Your task to perform on an android device: turn smart compose on in the gmail app Image 0: 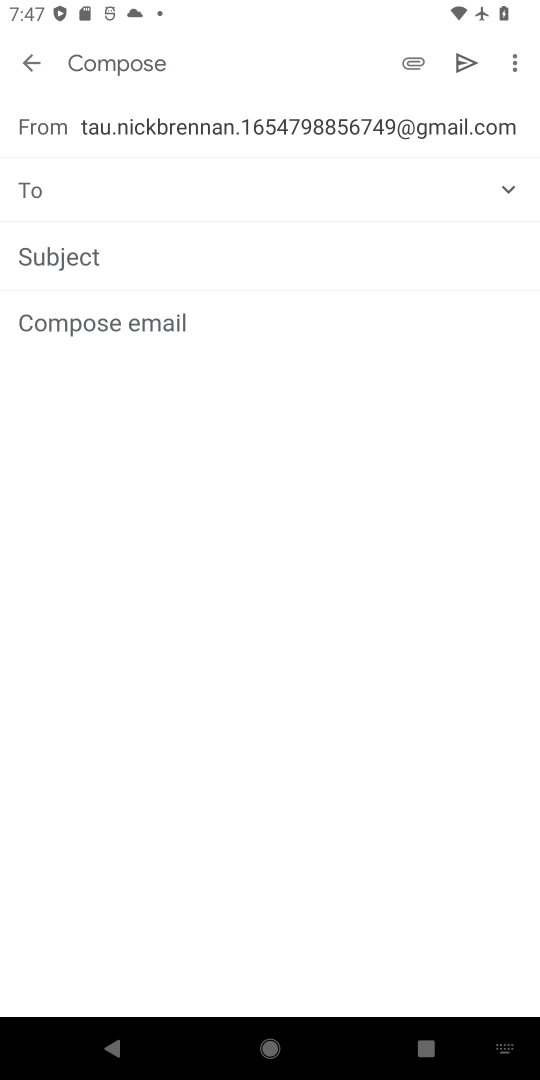
Step 0: press home button
Your task to perform on an android device: turn smart compose on in the gmail app Image 1: 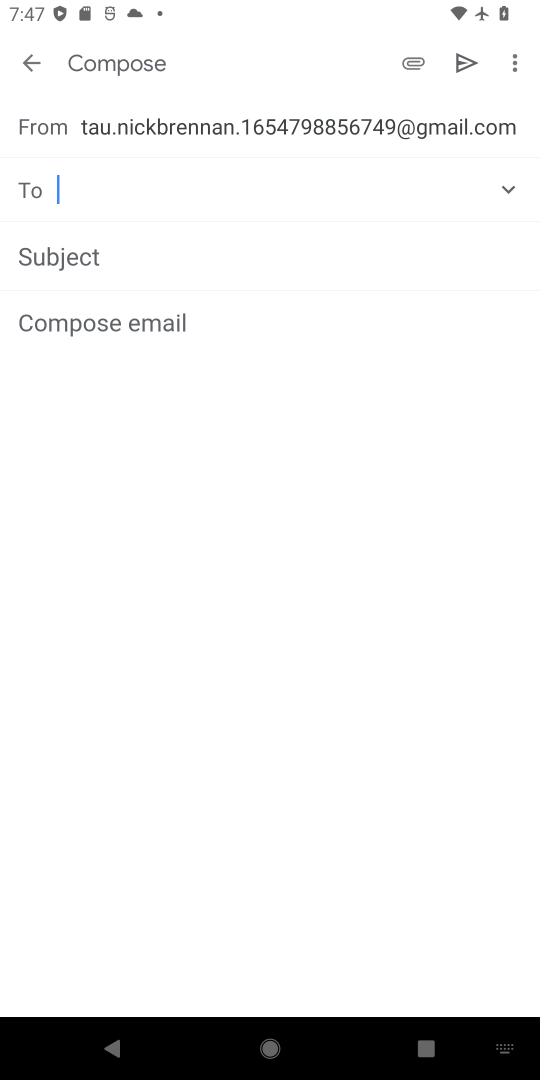
Step 1: press home button
Your task to perform on an android device: turn smart compose on in the gmail app Image 2: 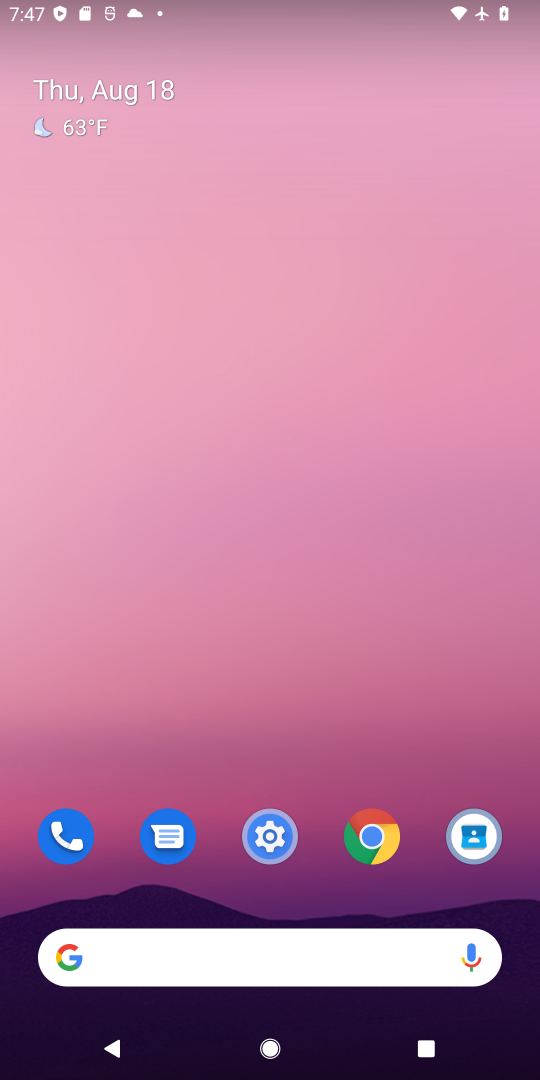
Step 2: drag from (322, 724) to (389, 47)
Your task to perform on an android device: turn smart compose on in the gmail app Image 3: 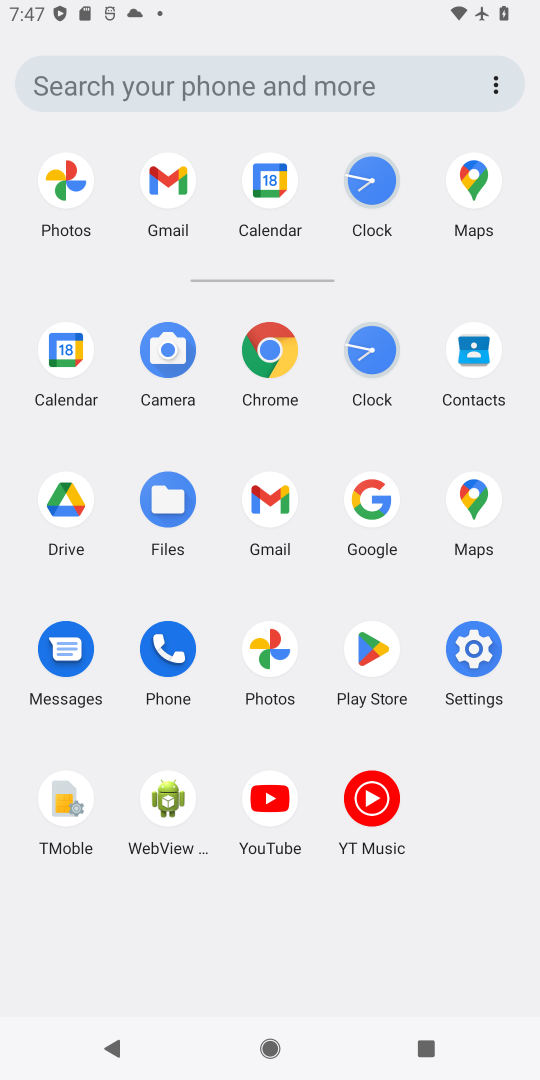
Step 3: click (279, 511)
Your task to perform on an android device: turn smart compose on in the gmail app Image 4: 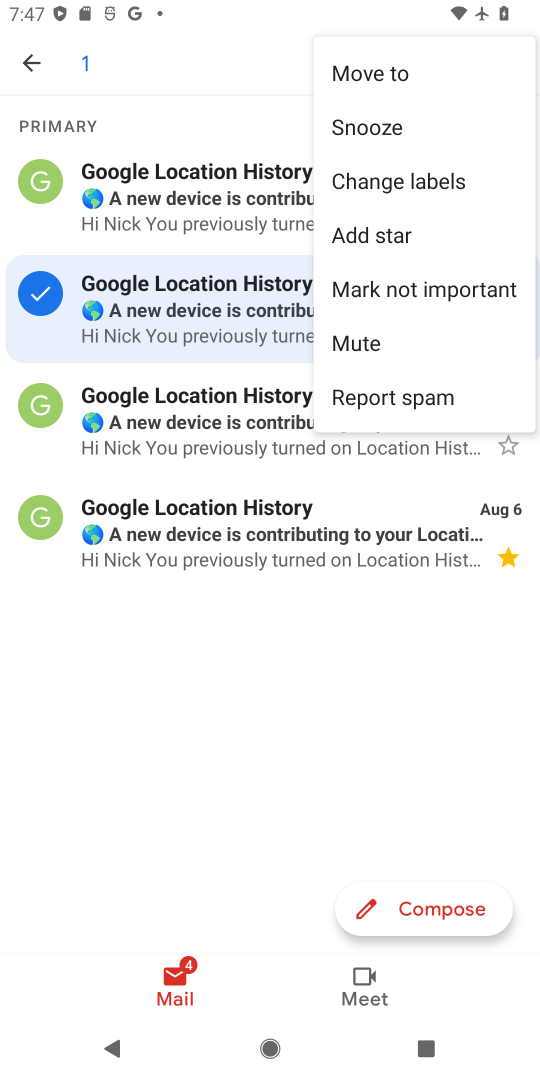
Step 4: click (162, 742)
Your task to perform on an android device: turn smart compose on in the gmail app Image 5: 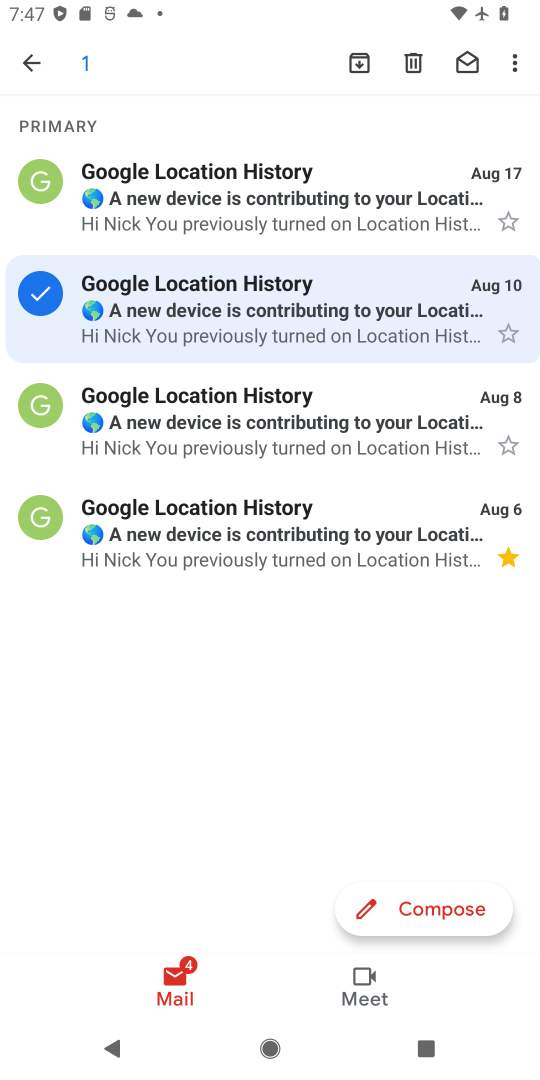
Step 5: press back button
Your task to perform on an android device: turn smart compose on in the gmail app Image 6: 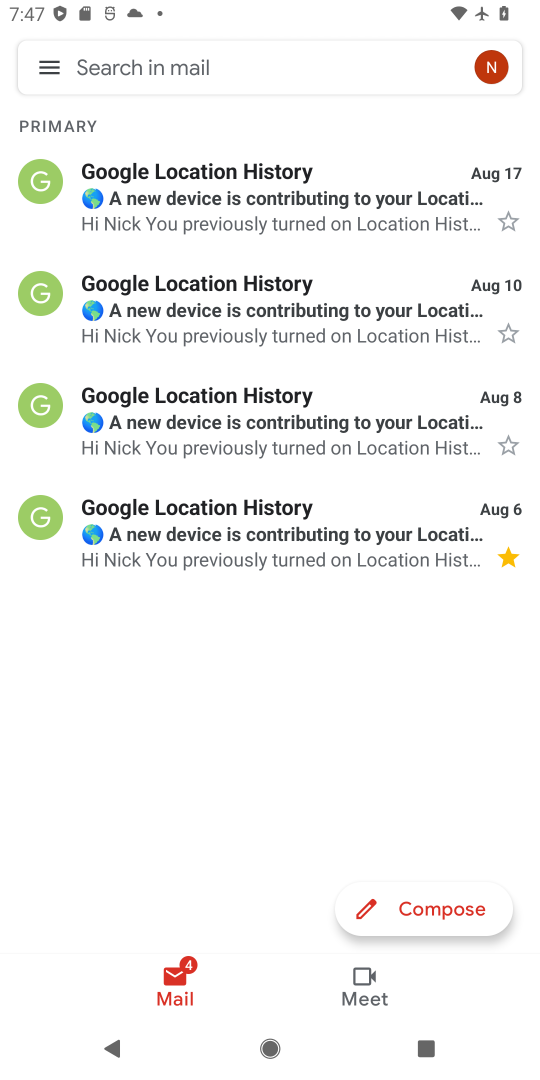
Step 6: click (46, 67)
Your task to perform on an android device: turn smart compose on in the gmail app Image 7: 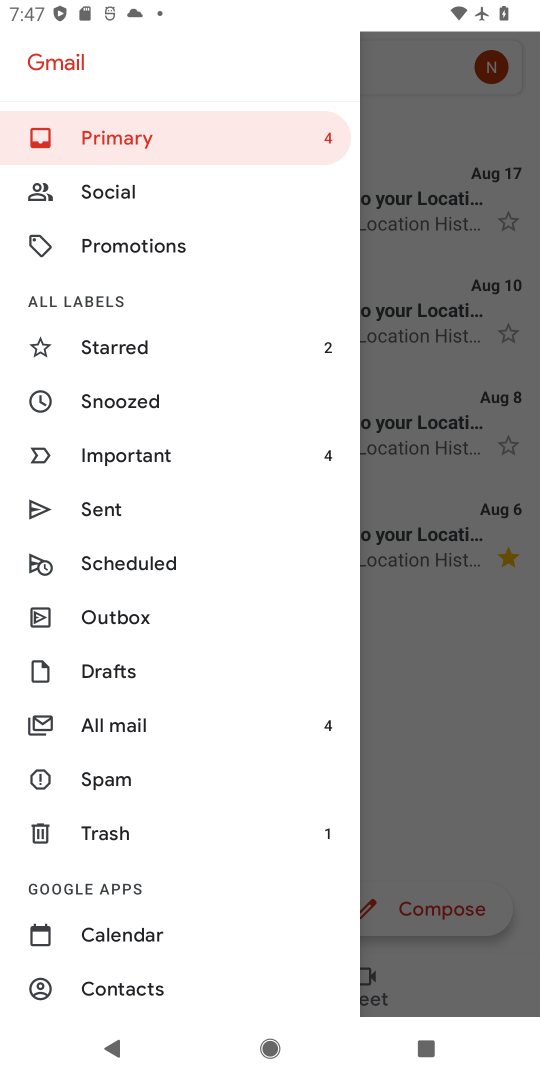
Step 7: drag from (137, 845) to (227, 228)
Your task to perform on an android device: turn smart compose on in the gmail app Image 8: 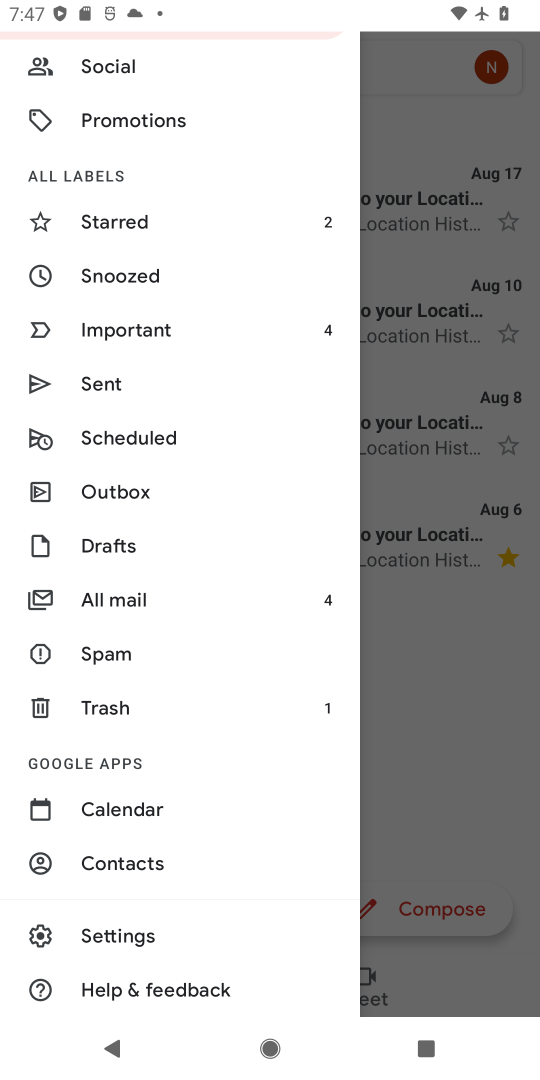
Step 8: click (134, 926)
Your task to perform on an android device: turn smart compose on in the gmail app Image 9: 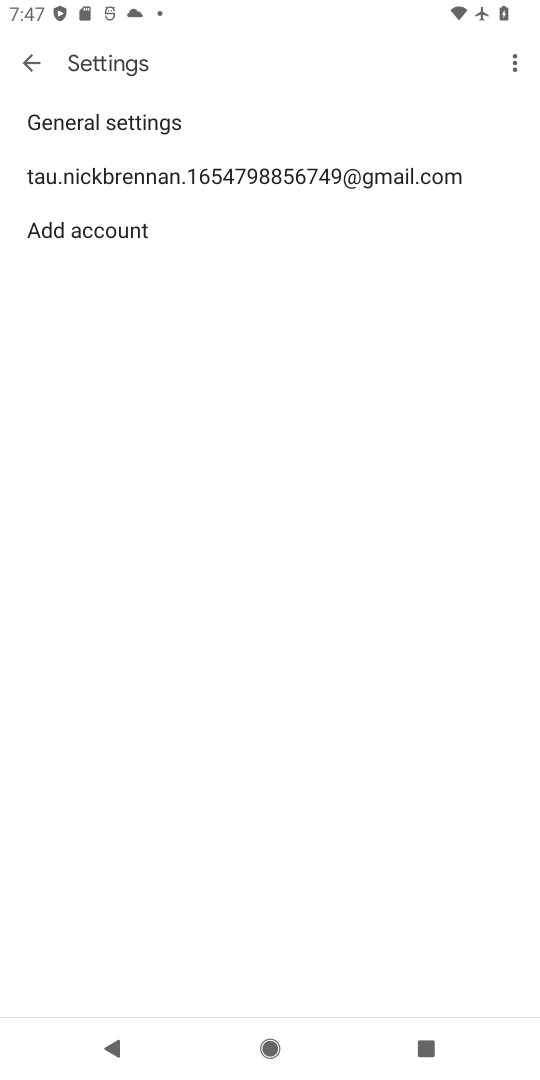
Step 9: click (385, 169)
Your task to perform on an android device: turn smart compose on in the gmail app Image 10: 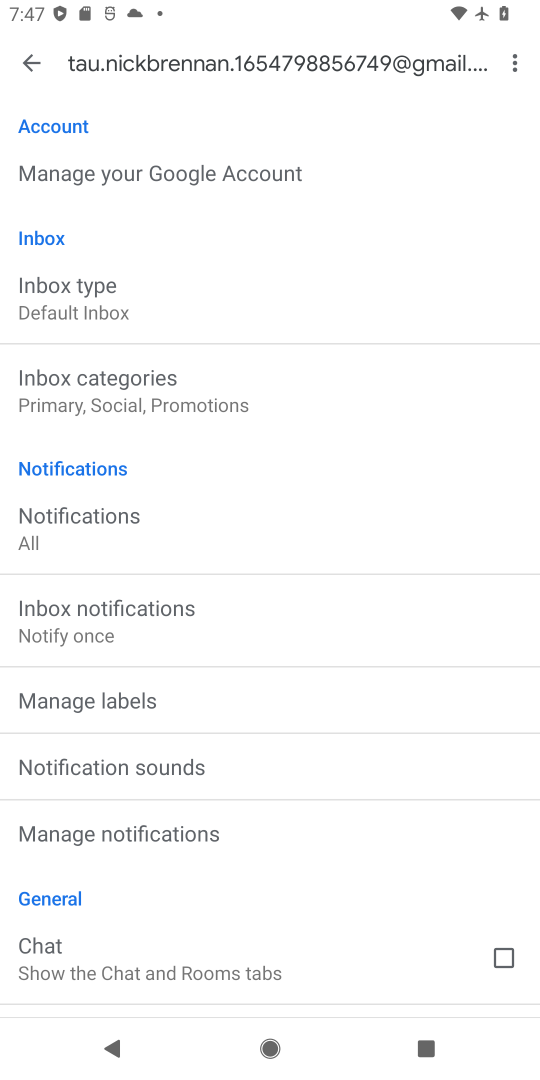
Step 10: task complete